Your task to perform on an android device: set the timer Image 0: 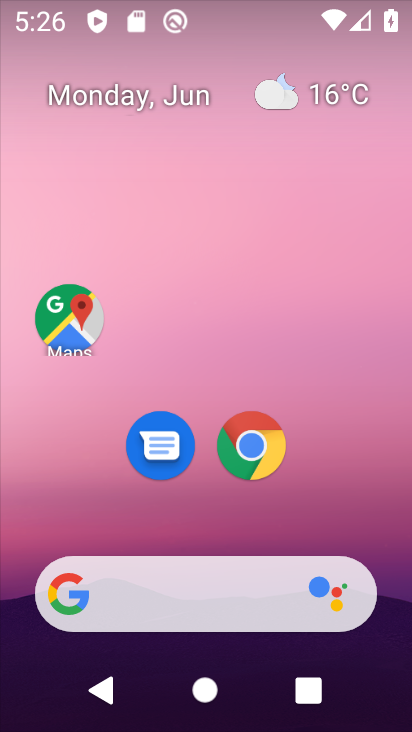
Step 0: drag from (334, 457) to (285, 48)
Your task to perform on an android device: set the timer Image 1: 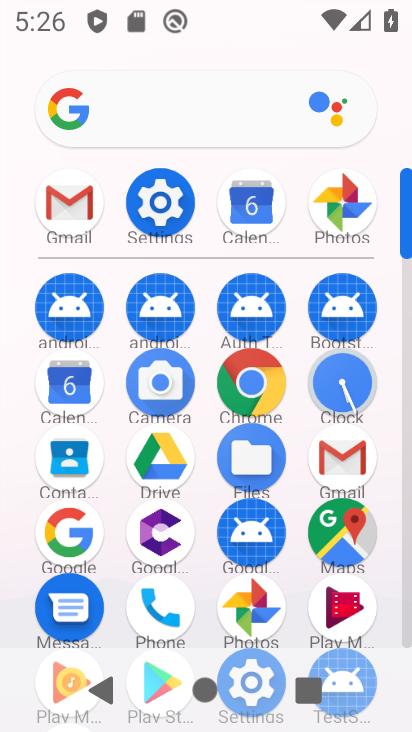
Step 1: click (346, 382)
Your task to perform on an android device: set the timer Image 2: 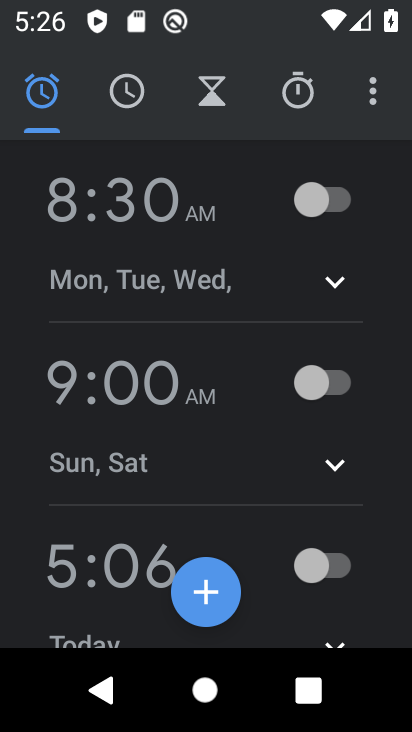
Step 2: click (221, 99)
Your task to perform on an android device: set the timer Image 3: 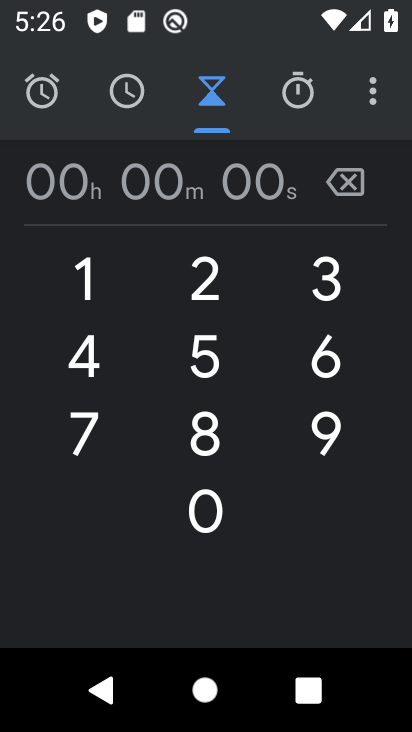
Step 3: type "135"
Your task to perform on an android device: set the timer Image 4: 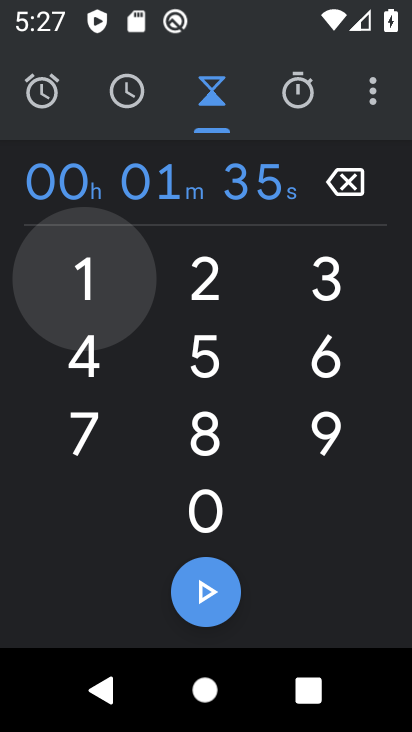
Step 4: click (206, 587)
Your task to perform on an android device: set the timer Image 5: 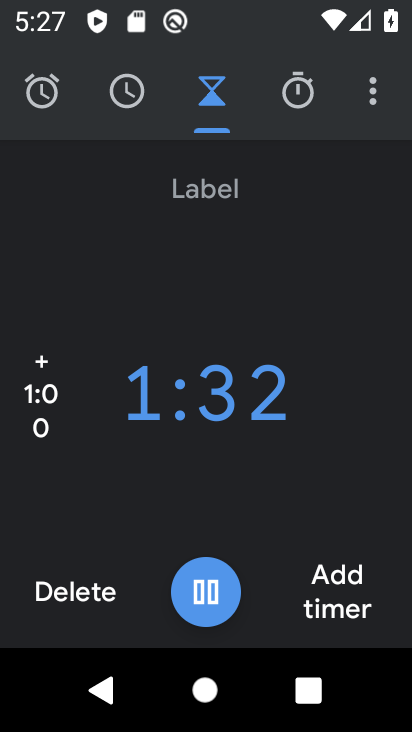
Step 5: click (206, 587)
Your task to perform on an android device: set the timer Image 6: 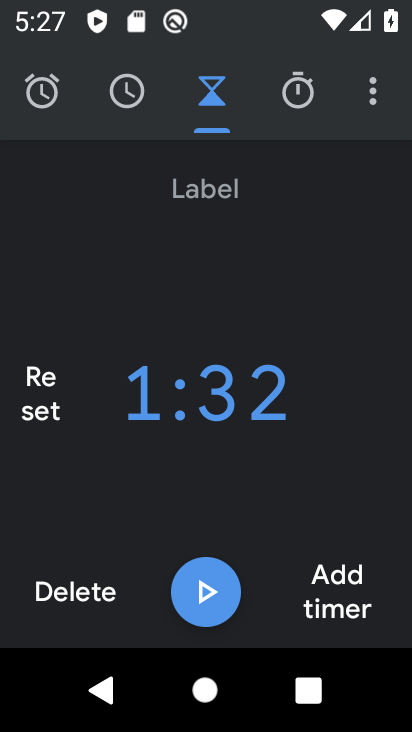
Step 6: task complete